Your task to perform on an android device: open app "The Home Depot" (install if not already installed) Image 0: 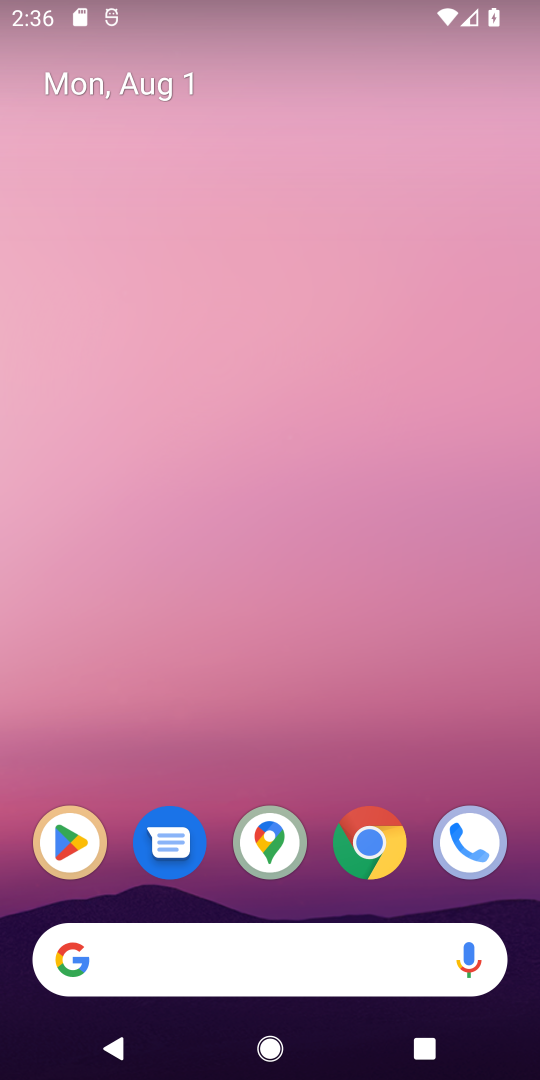
Step 0: click (74, 839)
Your task to perform on an android device: open app "The Home Depot" (install if not already installed) Image 1: 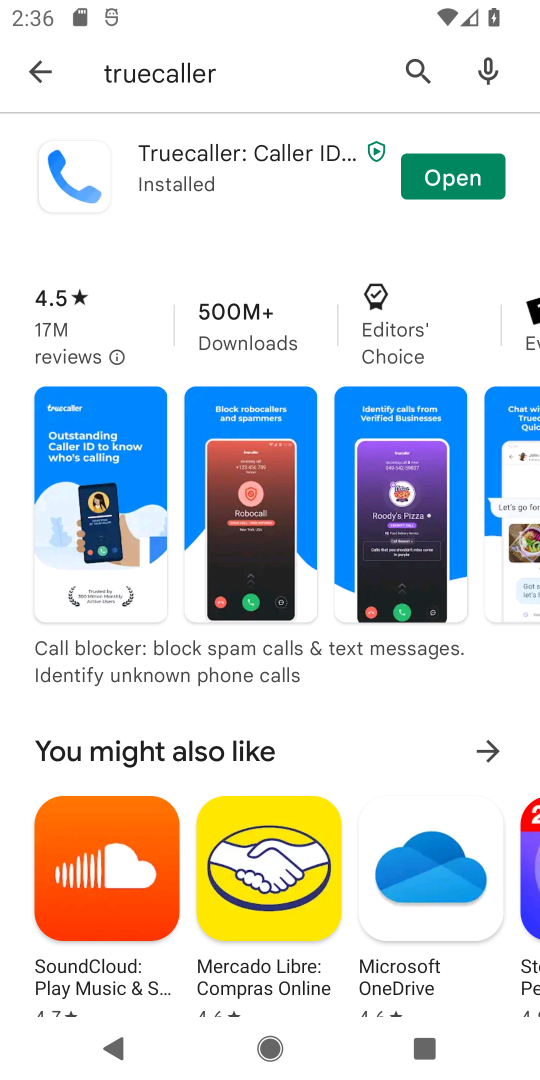
Step 1: click (256, 67)
Your task to perform on an android device: open app "The Home Depot" (install if not already installed) Image 2: 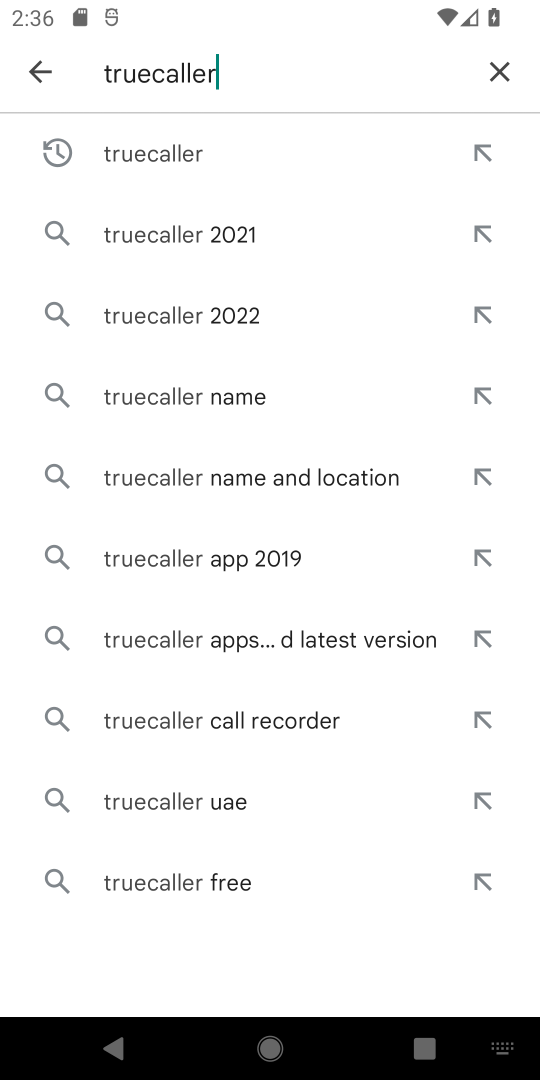
Step 2: click (492, 75)
Your task to perform on an android device: open app "The Home Depot" (install if not already installed) Image 3: 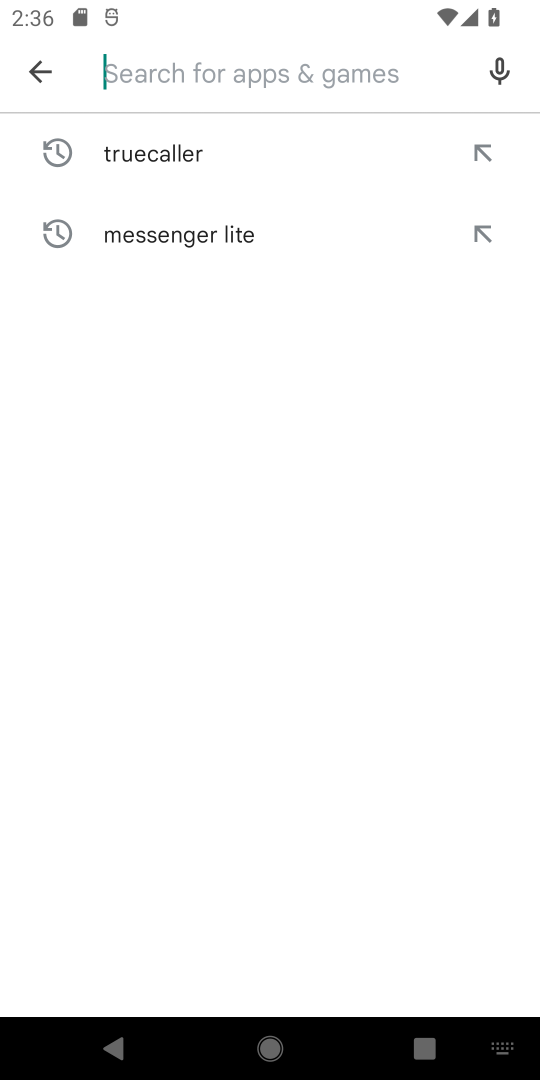
Step 3: type "the home depot"
Your task to perform on an android device: open app "The Home Depot" (install if not already installed) Image 4: 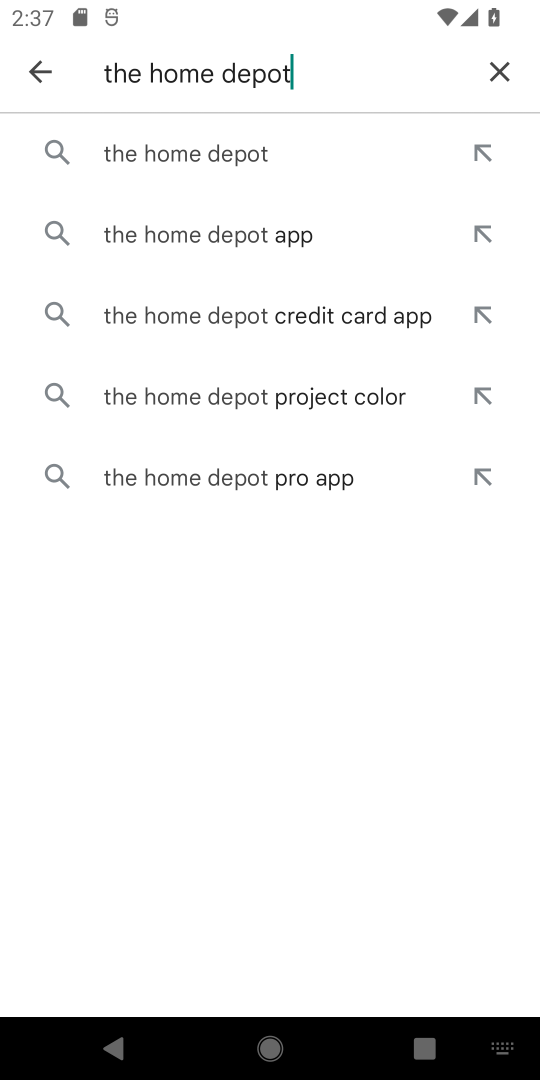
Step 4: click (212, 168)
Your task to perform on an android device: open app "The Home Depot" (install if not already installed) Image 5: 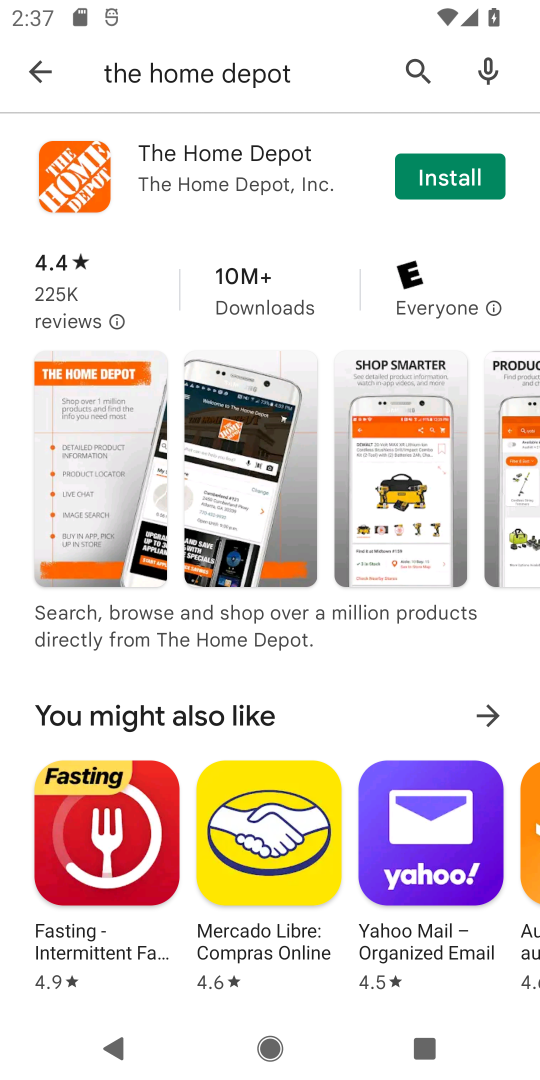
Step 5: click (462, 178)
Your task to perform on an android device: open app "The Home Depot" (install if not already installed) Image 6: 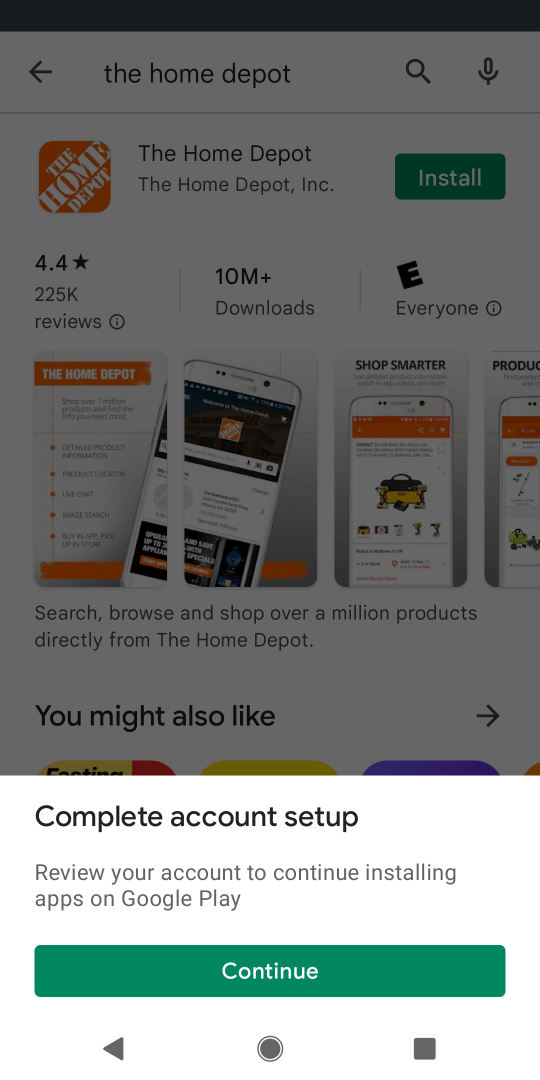
Step 6: click (222, 962)
Your task to perform on an android device: open app "The Home Depot" (install if not already installed) Image 7: 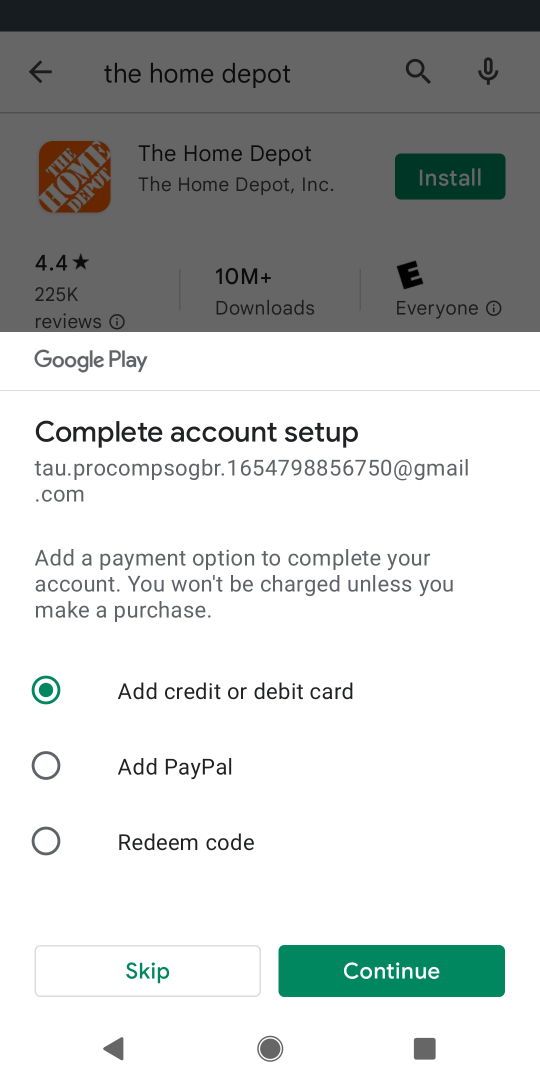
Step 7: click (96, 975)
Your task to perform on an android device: open app "The Home Depot" (install if not already installed) Image 8: 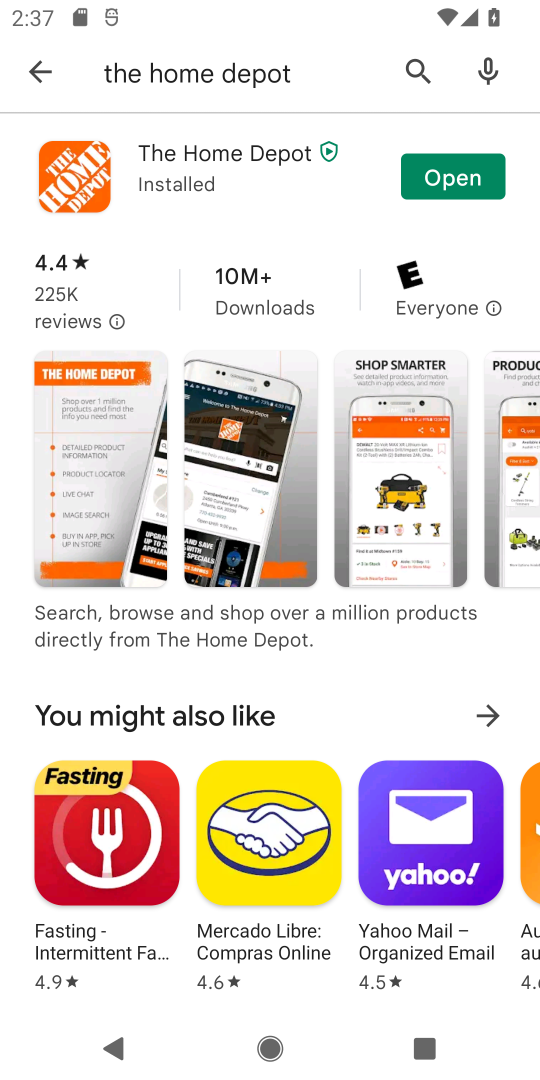
Step 8: click (443, 163)
Your task to perform on an android device: open app "The Home Depot" (install if not already installed) Image 9: 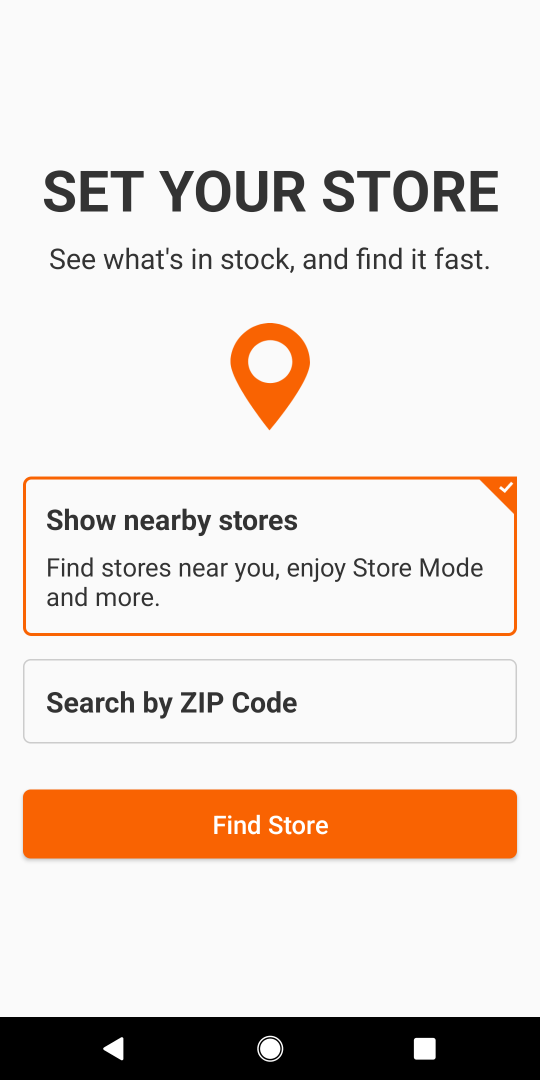
Step 9: task complete